Your task to perform on an android device: find snoozed emails in the gmail app Image 0: 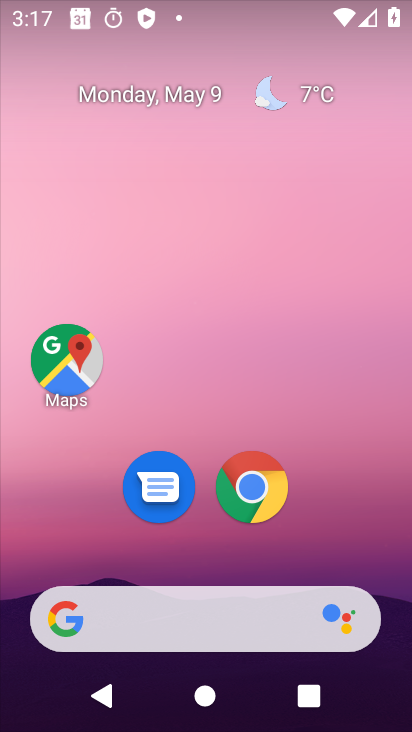
Step 0: drag from (342, 563) to (317, 75)
Your task to perform on an android device: find snoozed emails in the gmail app Image 1: 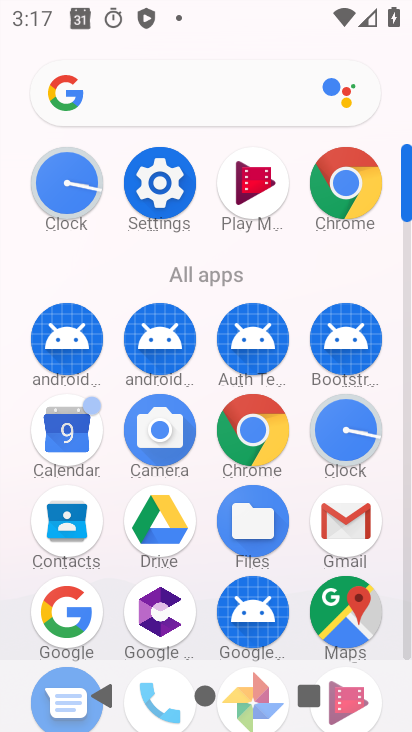
Step 1: click (354, 515)
Your task to perform on an android device: find snoozed emails in the gmail app Image 2: 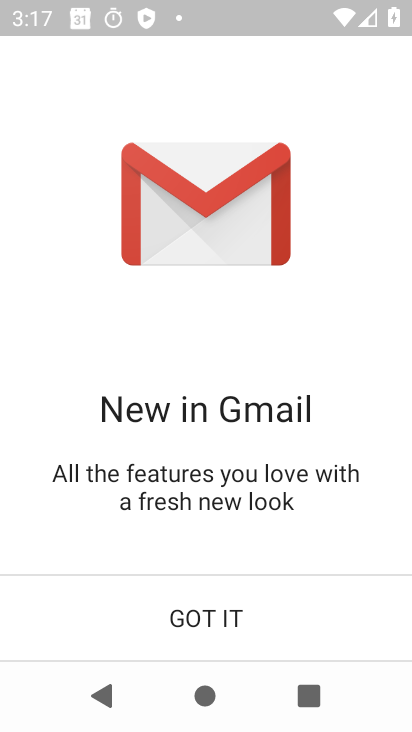
Step 2: click (205, 623)
Your task to perform on an android device: find snoozed emails in the gmail app Image 3: 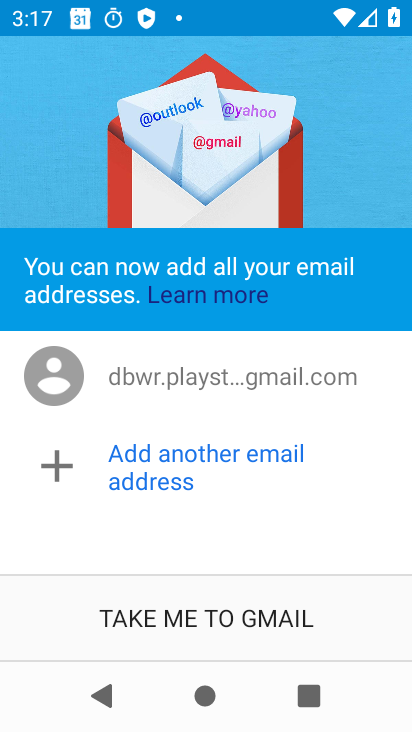
Step 3: click (205, 623)
Your task to perform on an android device: find snoozed emails in the gmail app Image 4: 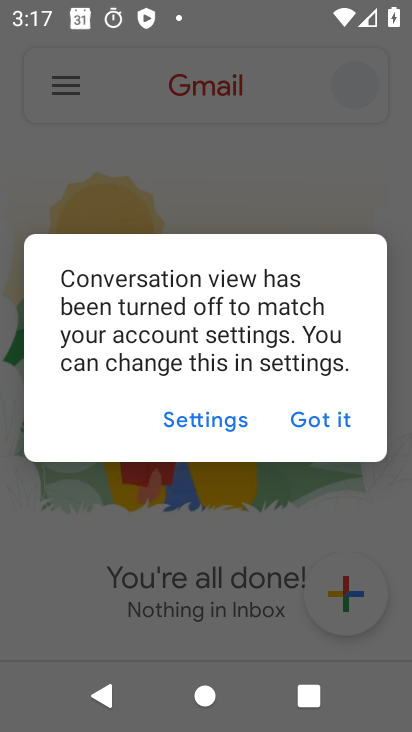
Step 4: click (313, 423)
Your task to perform on an android device: find snoozed emails in the gmail app Image 5: 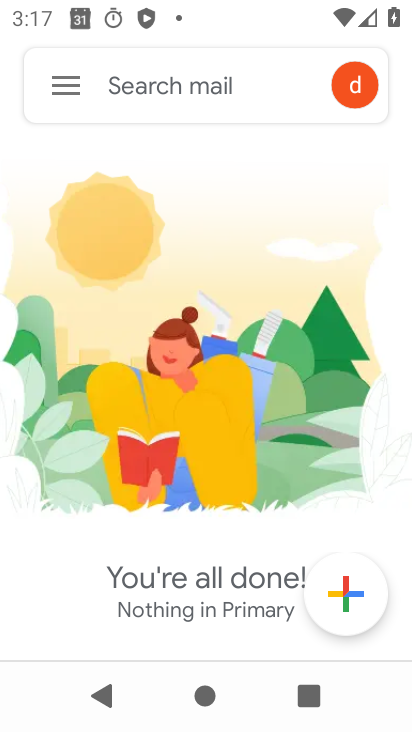
Step 5: drag from (74, 76) to (119, 284)
Your task to perform on an android device: find snoozed emails in the gmail app Image 6: 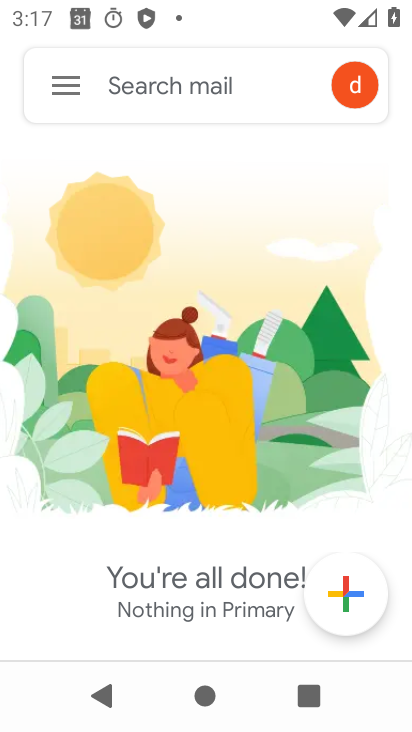
Step 6: click (69, 87)
Your task to perform on an android device: find snoozed emails in the gmail app Image 7: 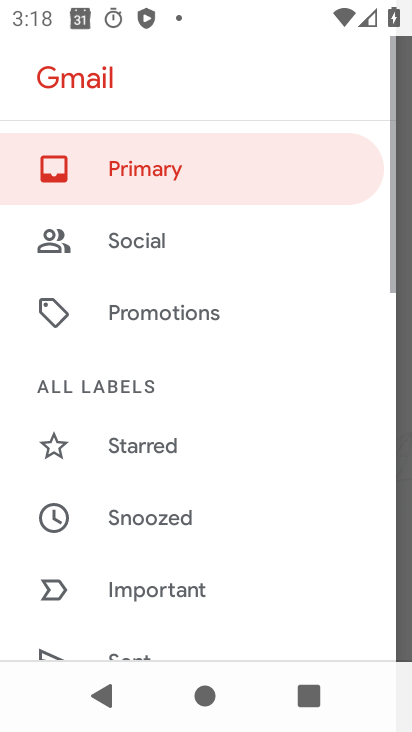
Step 7: drag from (173, 576) to (166, 30)
Your task to perform on an android device: find snoozed emails in the gmail app Image 8: 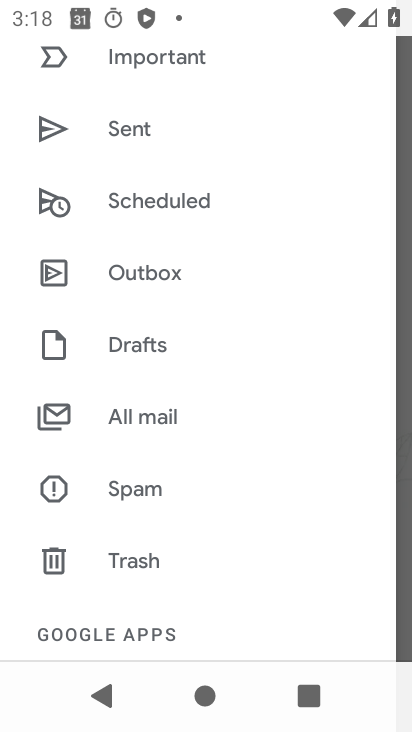
Step 8: drag from (215, 264) to (257, 590)
Your task to perform on an android device: find snoozed emails in the gmail app Image 9: 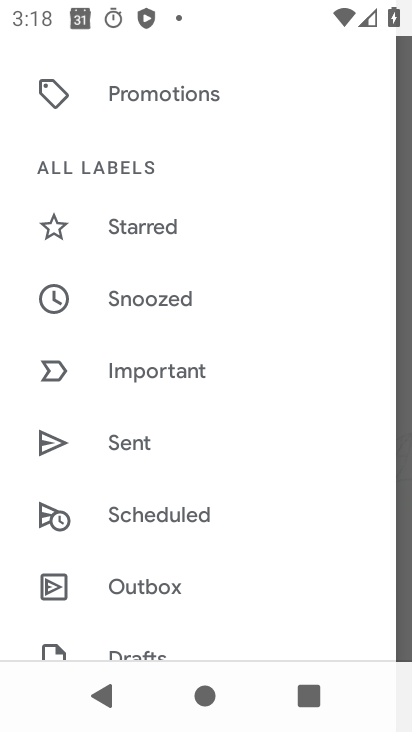
Step 9: click (234, 296)
Your task to perform on an android device: find snoozed emails in the gmail app Image 10: 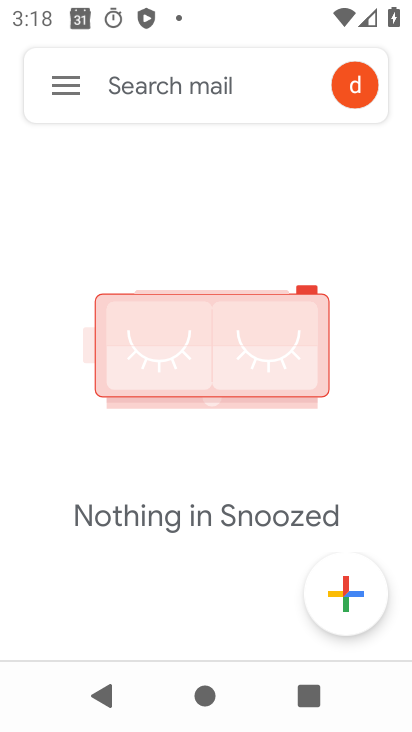
Step 10: task complete